Your task to perform on an android device: Show me recent news Image 0: 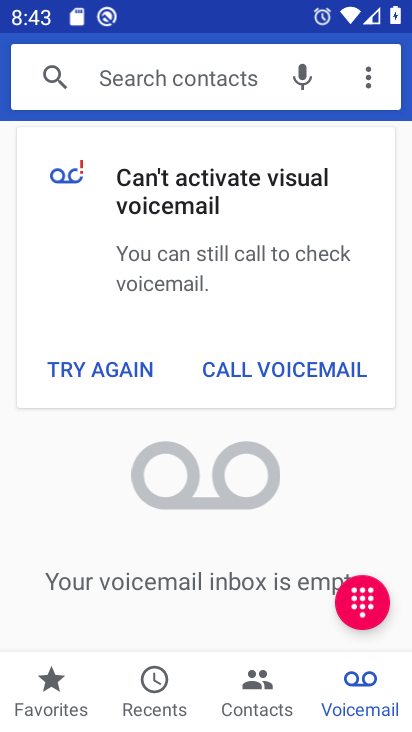
Step 0: press home button
Your task to perform on an android device: Show me recent news Image 1: 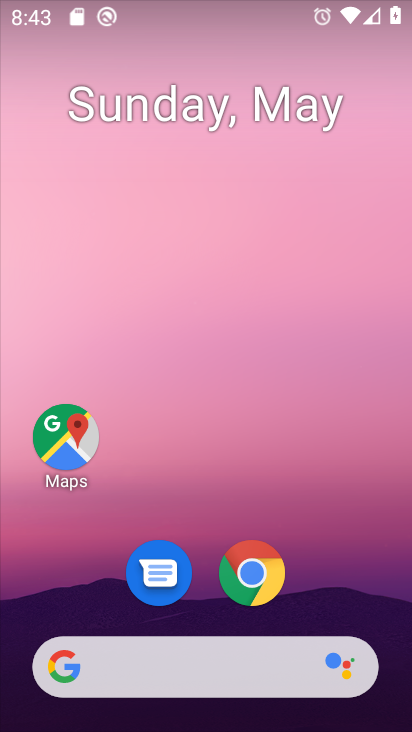
Step 1: click (270, 683)
Your task to perform on an android device: Show me recent news Image 2: 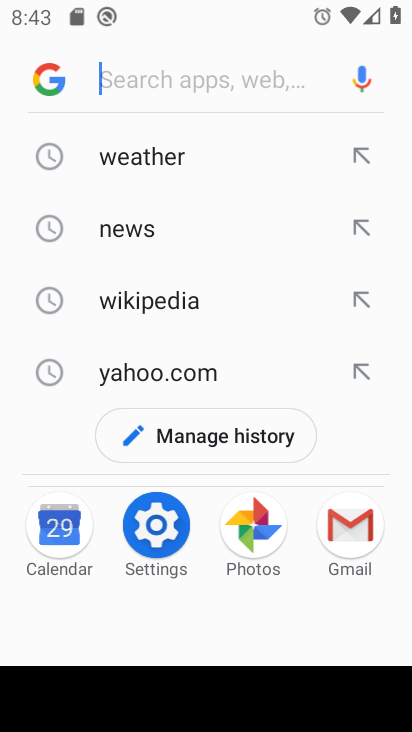
Step 2: click (107, 213)
Your task to perform on an android device: Show me recent news Image 3: 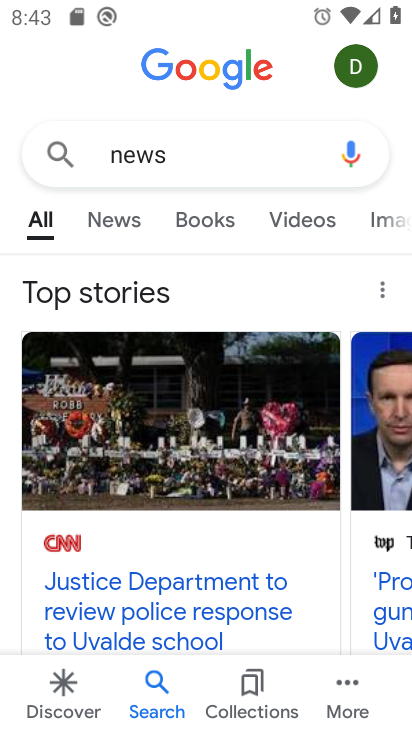
Step 3: task complete